Your task to perform on an android device: Open wifi settings Image 0: 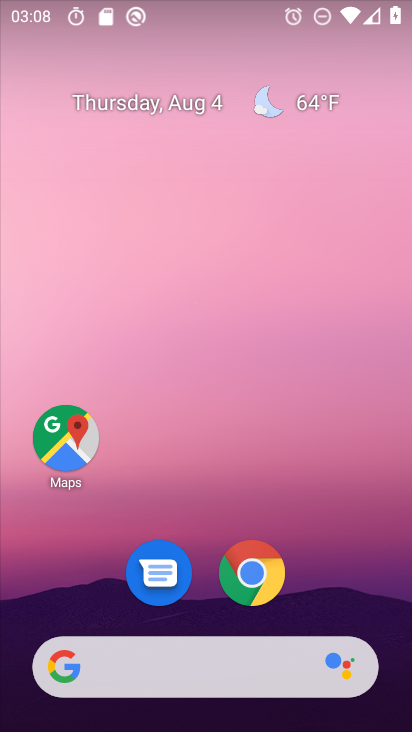
Step 0: drag from (344, 497) to (340, 59)
Your task to perform on an android device: Open wifi settings Image 1: 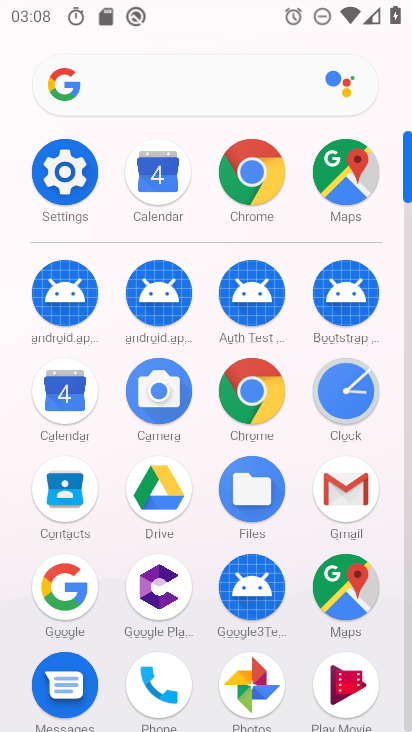
Step 1: click (50, 164)
Your task to perform on an android device: Open wifi settings Image 2: 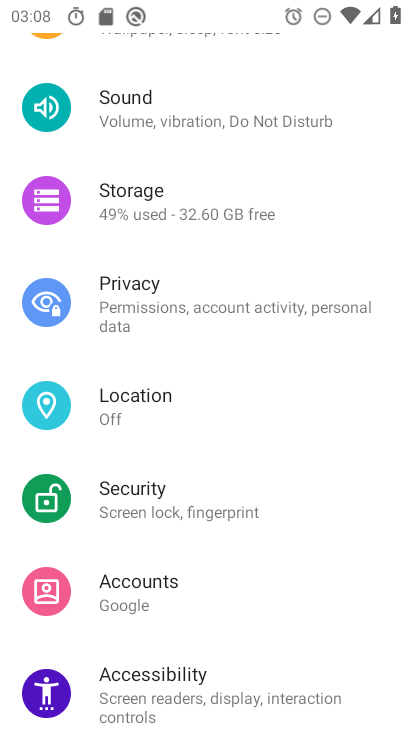
Step 2: drag from (338, 151) to (309, 582)
Your task to perform on an android device: Open wifi settings Image 3: 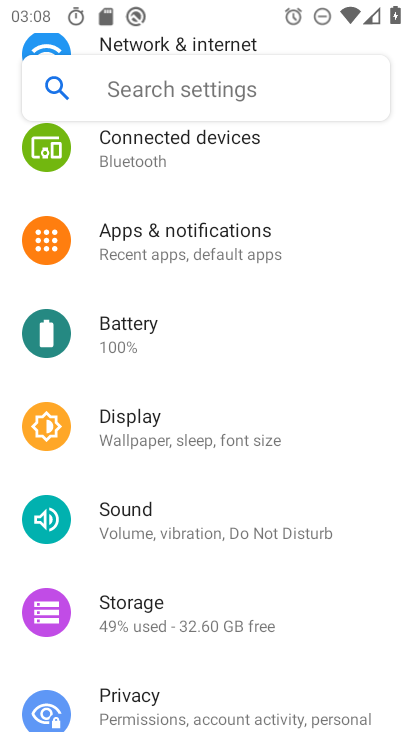
Step 3: drag from (324, 160) to (322, 538)
Your task to perform on an android device: Open wifi settings Image 4: 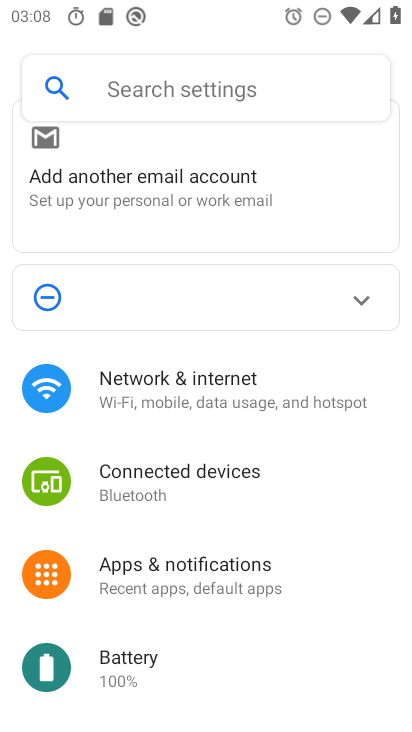
Step 4: click (213, 391)
Your task to perform on an android device: Open wifi settings Image 5: 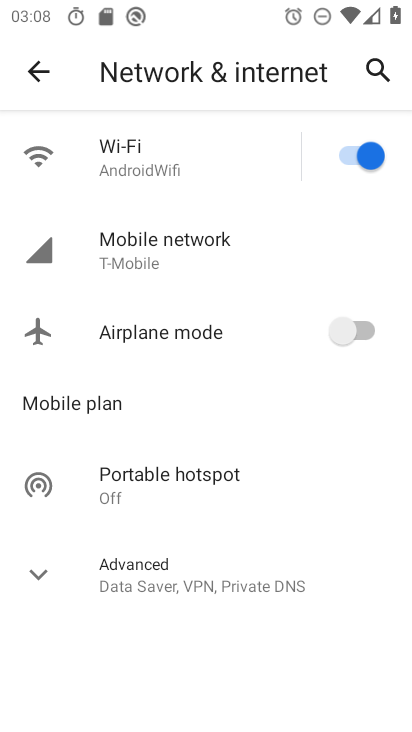
Step 5: click (238, 168)
Your task to perform on an android device: Open wifi settings Image 6: 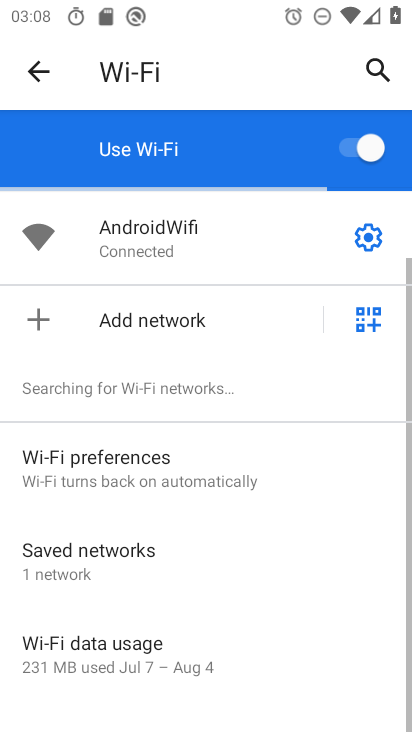
Step 6: click (358, 232)
Your task to perform on an android device: Open wifi settings Image 7: 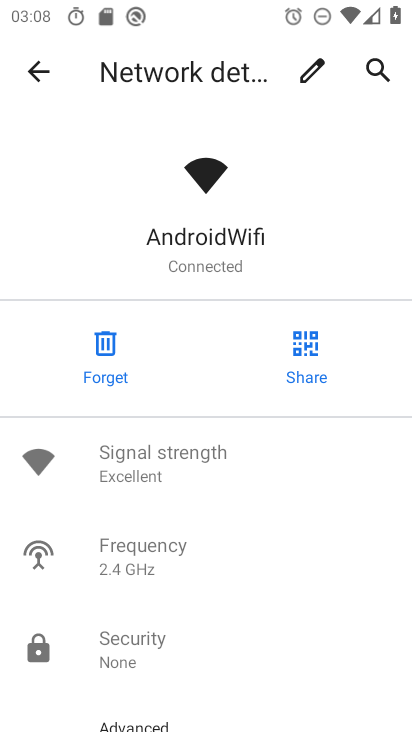
Step 7: task complete